Your task to perform on an android device: make emails show in primary in the gmail app Image 0: 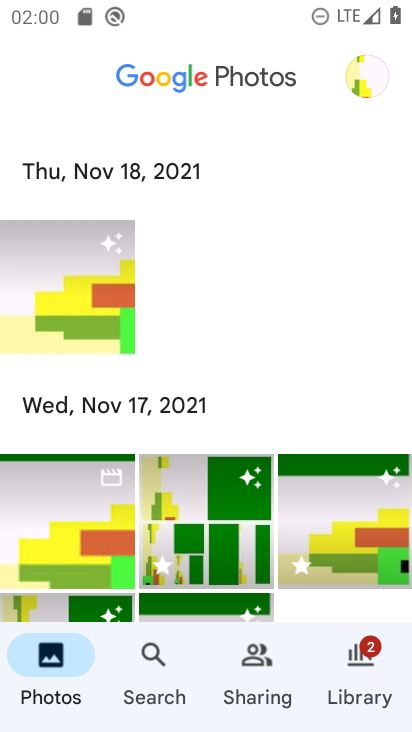
Step 0: press home button
Your task to perform on an android device: make emails show in primary in the gmail app Image 1: 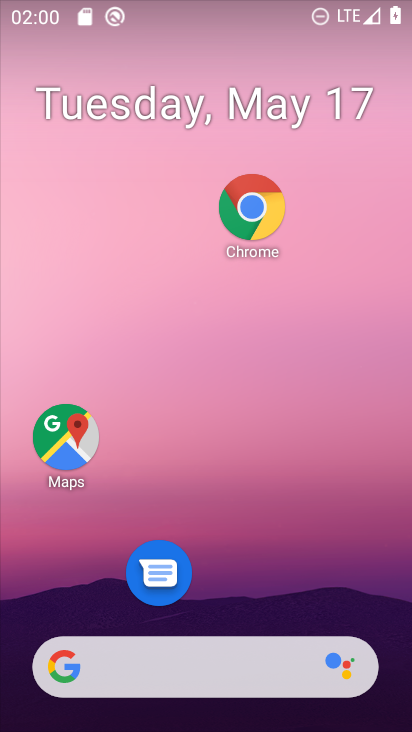
Step 1: drag from (280, 652) to (188, 83)
Your task to perform on an android device: make emails show in primary in the gmail app Image 2: 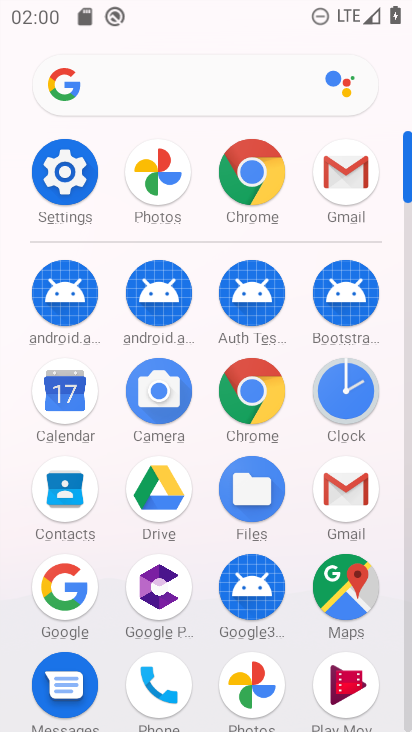
Step 2: click (353, 495)
Your task to perform on an android device: make emails show in primary in the gmail app Image 3: 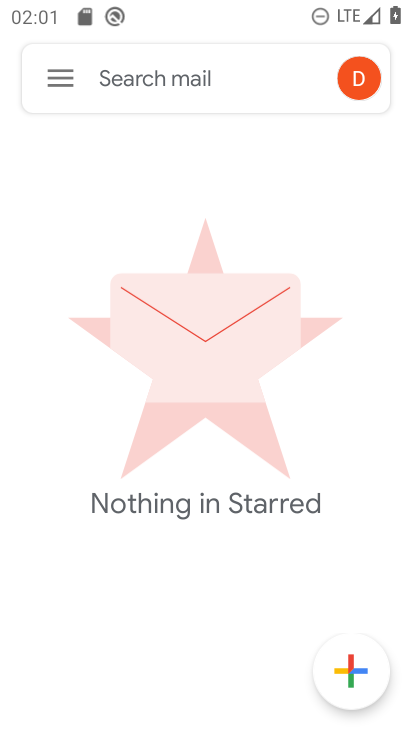
Step 3: click (62, 72)
Your task to perform on an android device: make emails show in primary in the gmail app Image 4: 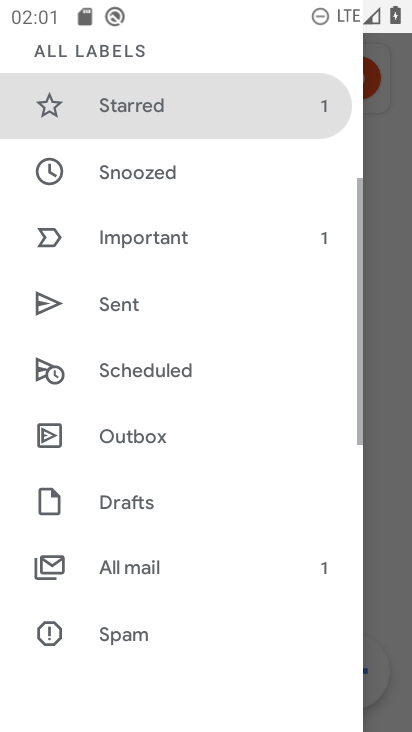
Step 4: drag from (230, 640) to (255, 128)
Your task to perform on an android device: make emails show in primary in the gmail app Image 5: 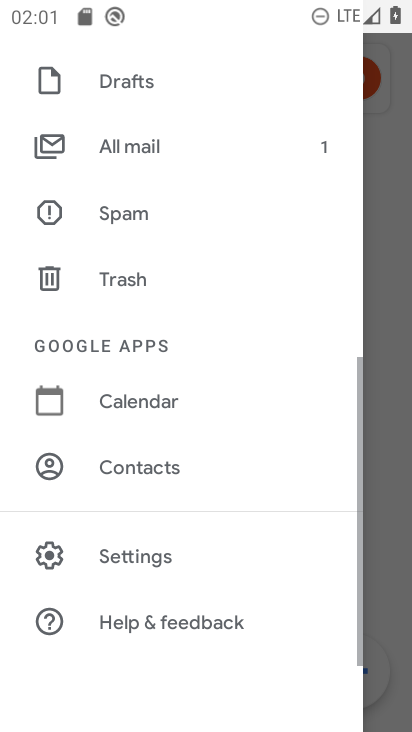
Step 5: click (190, 555)
Your task to perform on an android device: make emails show in primary in the gmail app Image 6: 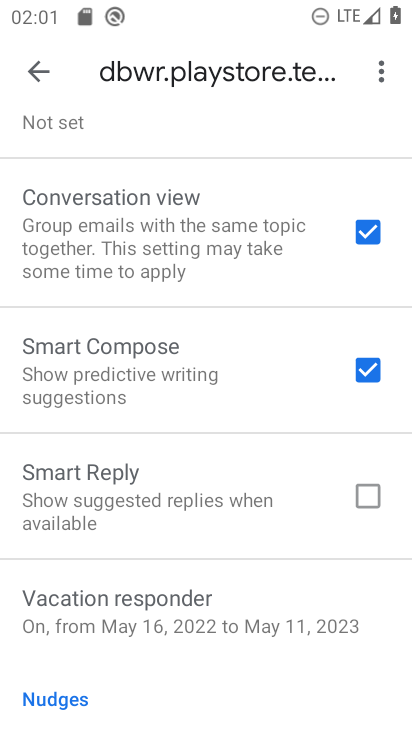
Step 6: drag from (212, 664) to (221, 151)
Your task to perform on an android device: make emails show in primary in the gmail app Image 7: 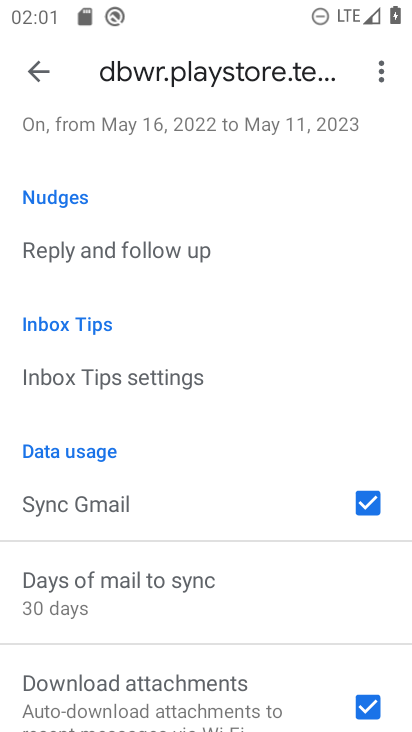
Step 7: drag from (229, 186) to (301, 731)
Your task to perform on an android device: make emails show in primary in the gmail app Image 8: 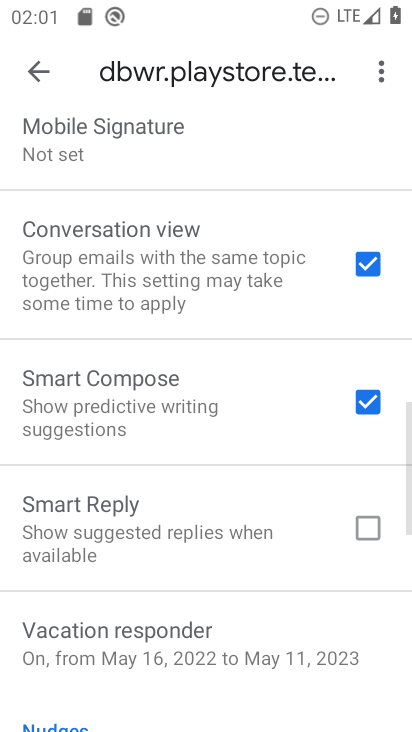
Step 8: drag from (217, 263) to (292, 725)
Your task to perform on an android device: make emails show in primary in the gmail app Image 9: 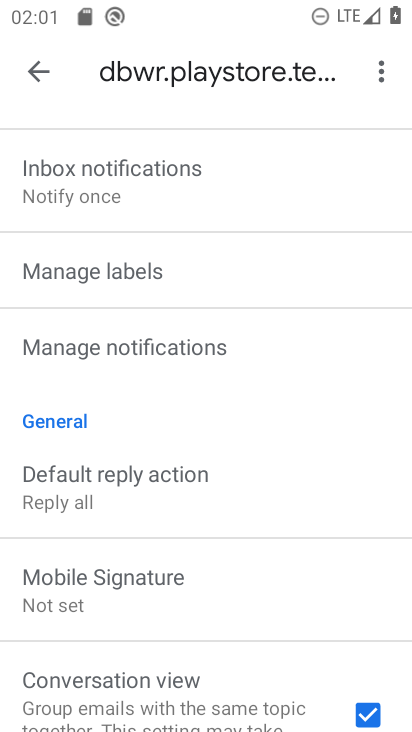
Step 9: drag from (178, 203) to (277, 684)
Your task to perform on an android device: make emails show in primary in the gmail app Image 10: 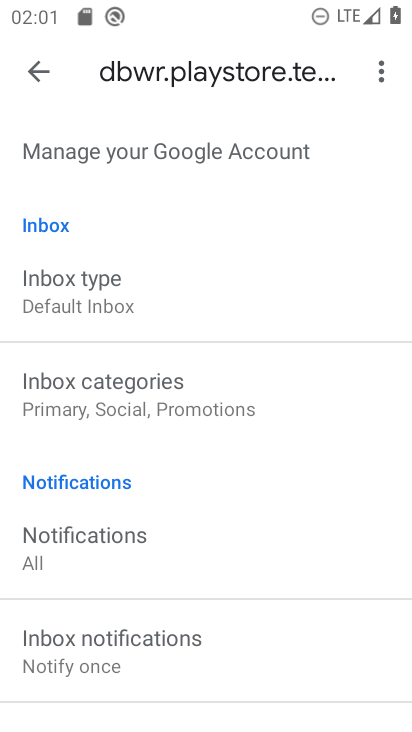
Step 10: click (109, 295)
Your task to perform on an android device: make emails show in primary in the gmail app Image 11: 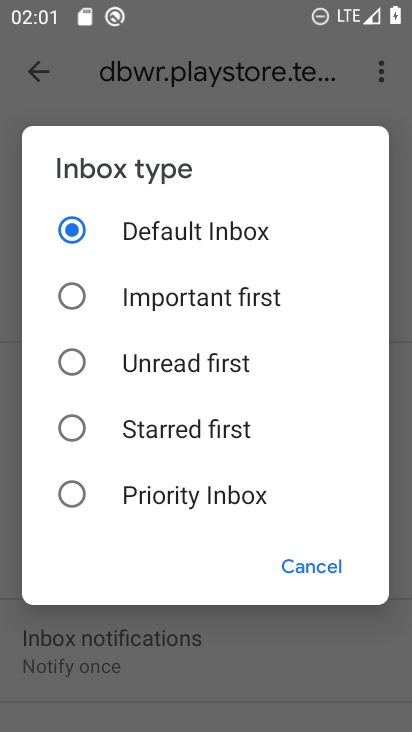
Step 11: press back button
Your task to perform on an android device: make emails show in primary in the gmail app Image 12: 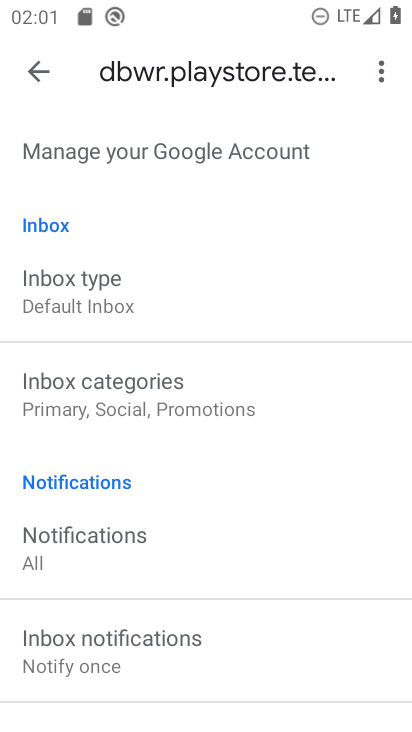
Step 12: press back button
Your task to perform on an android device: make emails show in primary in the gmail app Image 13: 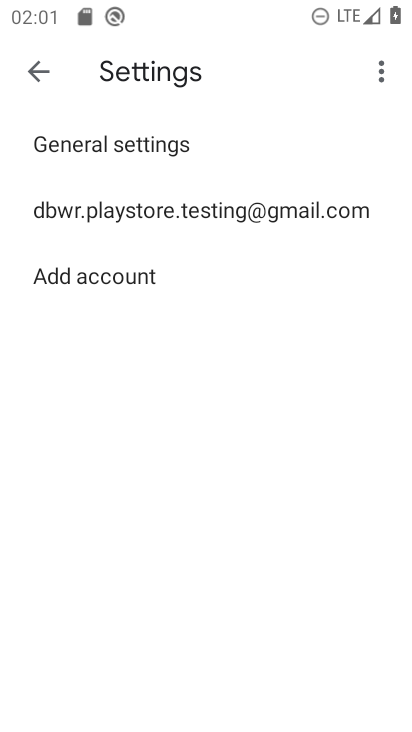
Step 13: press back button
Your task to perform on an android device: make emails show in primary in the gmail app Image 14: 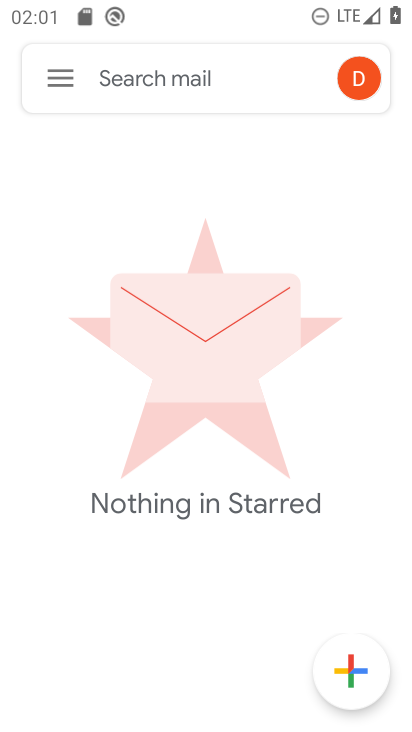
Step 14: click (66, 86)
Your task to perform on an android device: make emails show in primary in the gmail app Image 15: 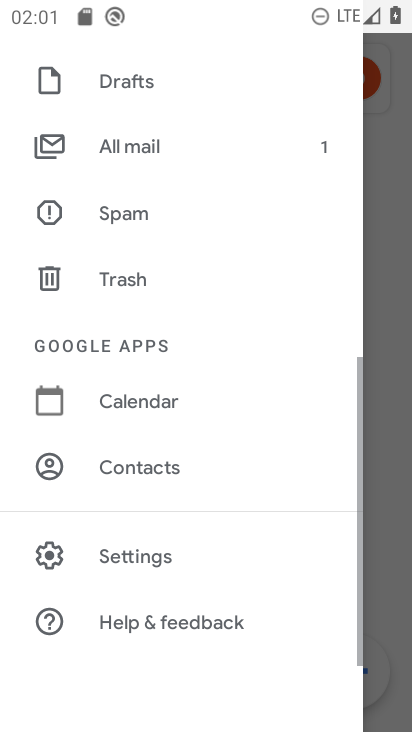
Step 15: drag from (116, 130) to (212, 708)
Your task to perform on an android device: make emails show in primary in the gmail app Image 16: 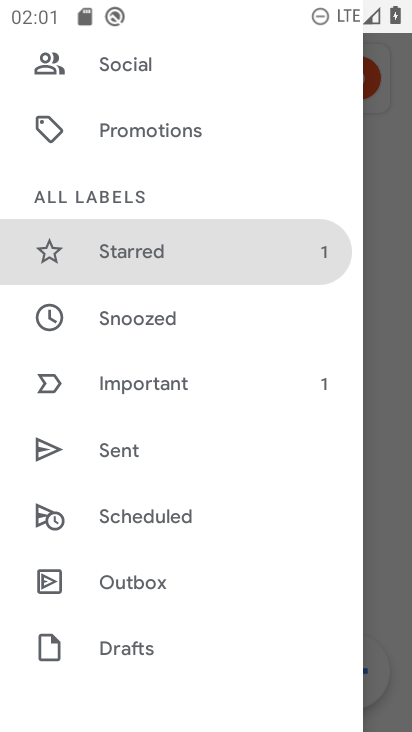
Step 16: drag from (240, 219) to (317, 671)
Your task to perform on an android device: make emails show in primary in the gmail app Image 17: 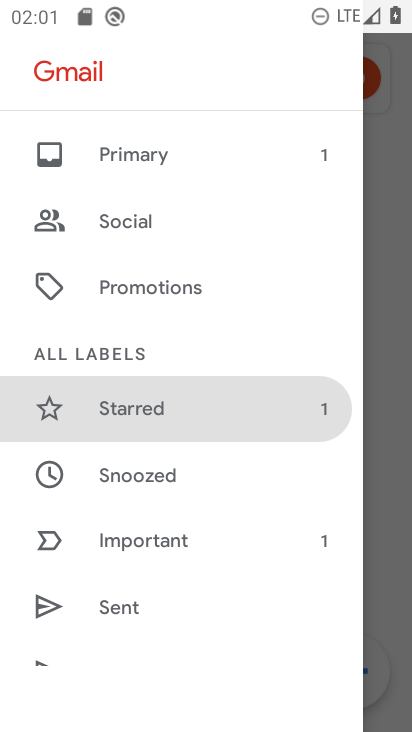
Step 17: click (175, 152)
Your task to perform on an android device: make emails show in primary in the gmail app Image 18: 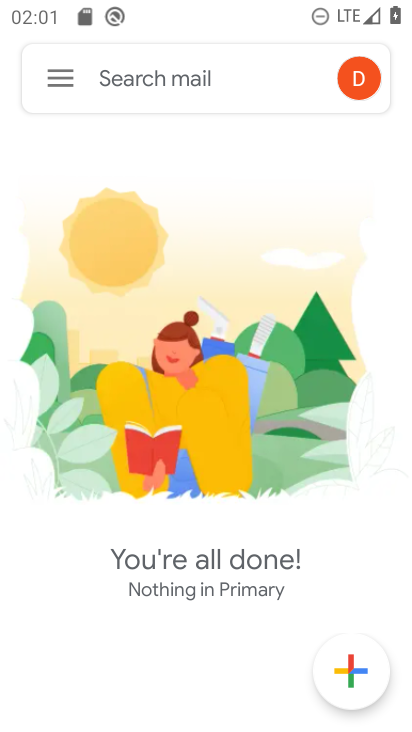
Step 18: task complete